Your task to perform on an android device: Open Google Chrome and open the bookmarks view Image 0: 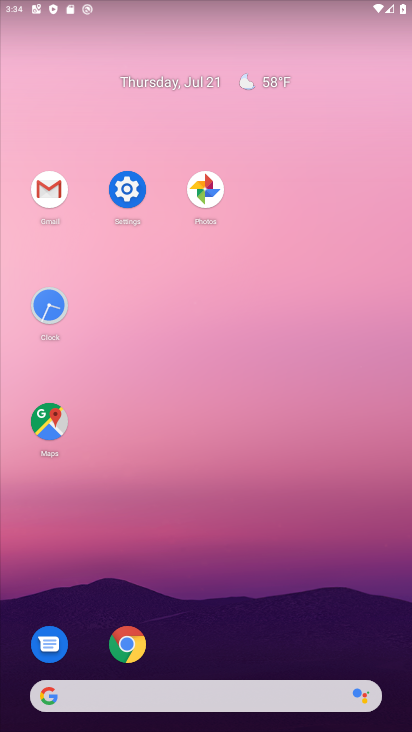
Step 0: click (131, 625)
Your task to perform on an android device: Open Google Chrome and open the bookmarks view Image 1: 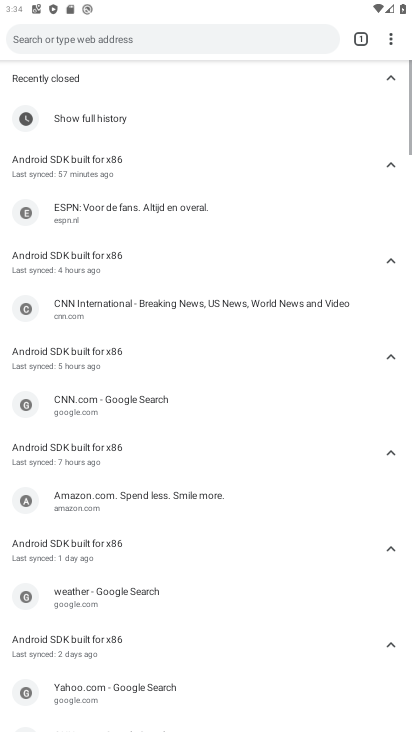
Step 1: click (391, 50)
Your task to perform on an android device: Open Google Chrome and open the bookmarks view Image 2: 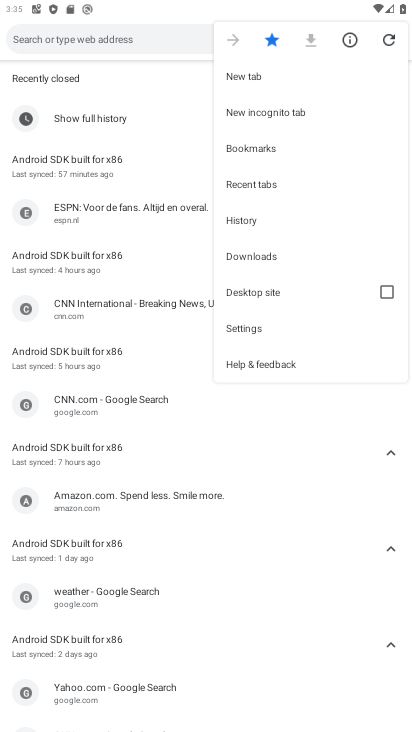
Step 2: click (239, 148)
Your task to perform on an android device: Open Google Chrome and open the bookmarks view Image 3: 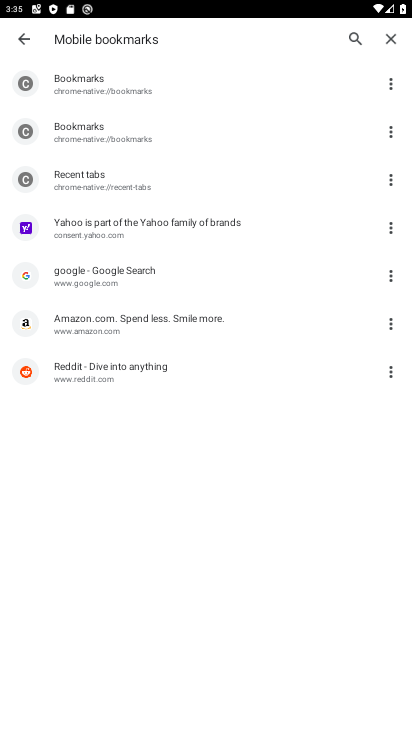
Step 3: task complete